Your task to perform on an android device: turn on sleep mode Image 0: 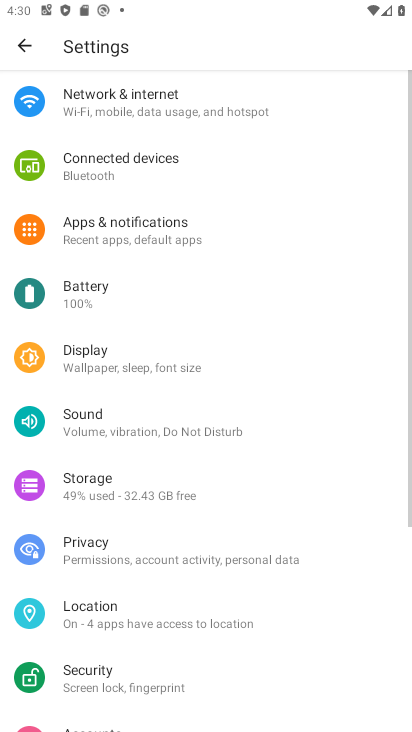
Step 0: click (16, 40)
Your task to perform on an android device: turn on sleep mode Image 1: 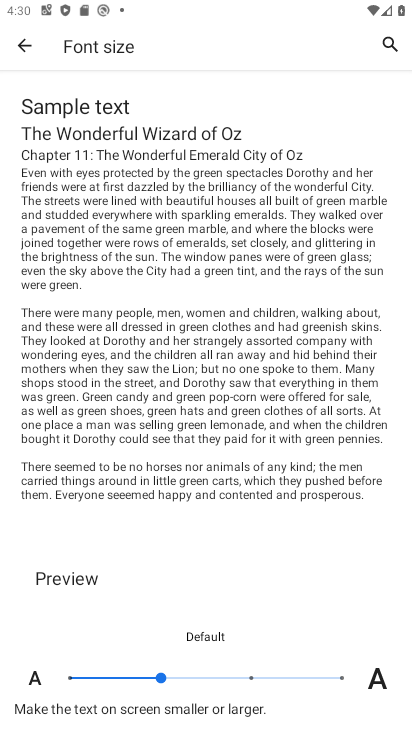
Step 1: press back button
Your task to perform on an android device: turn on sleep mode Image 2: 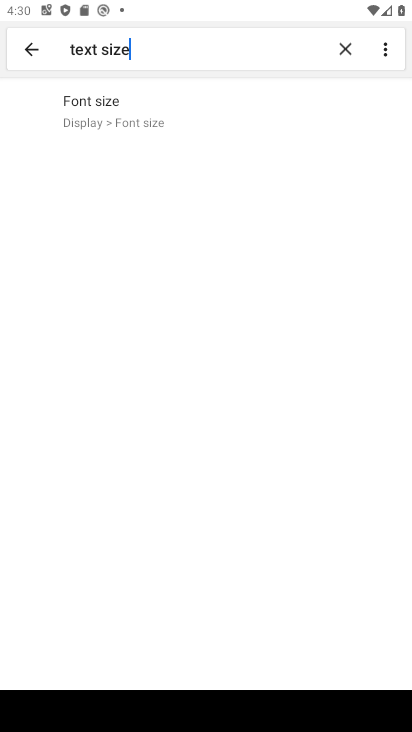
Step 2: press back button
Your task to perform on an android device: turn on sleep mode Image 3: 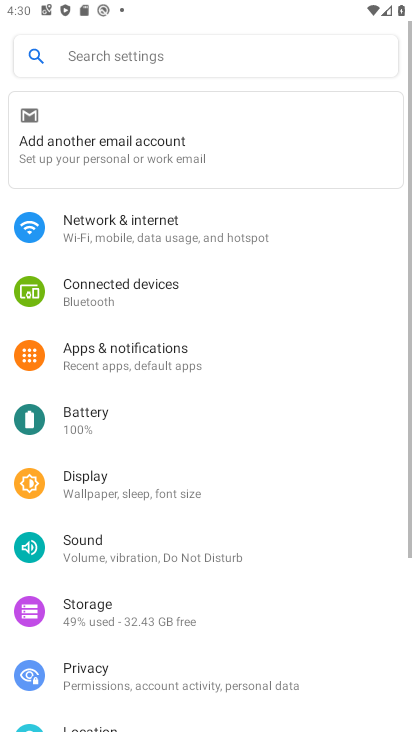
Step 3: click (187, 54)
Your task to perform on an android device: turn on sleep mode Image 4: 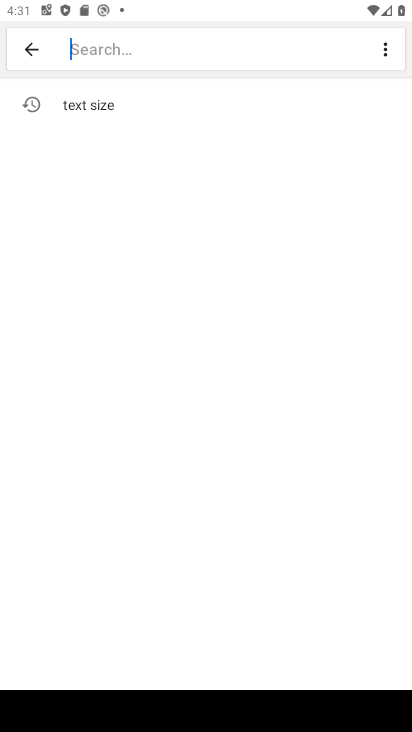
Step 4: type "sleep mode"
Your task to perform on an android device: turn on sleep mode Image 5: 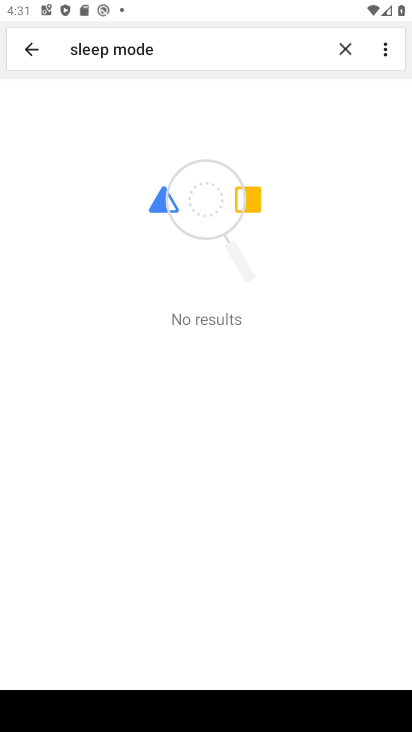
Step 5: task complete